Your task to perform on an android device: turn on the 24-hour format for clock Image 0: 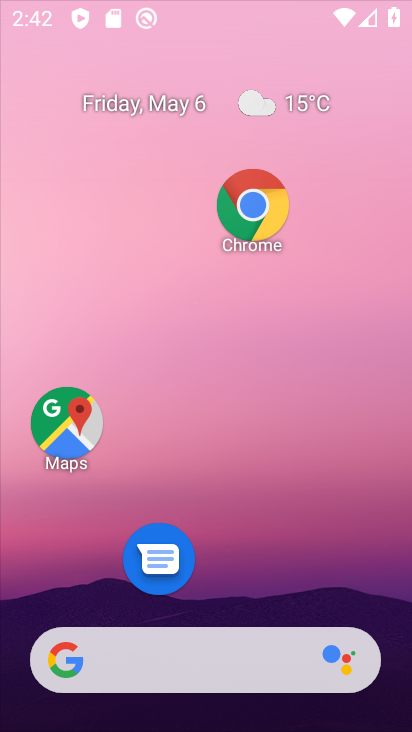
Step 0: click (296, 197)
Your task to perform on an android device: turn on the 24-hour format for clock Image 1: 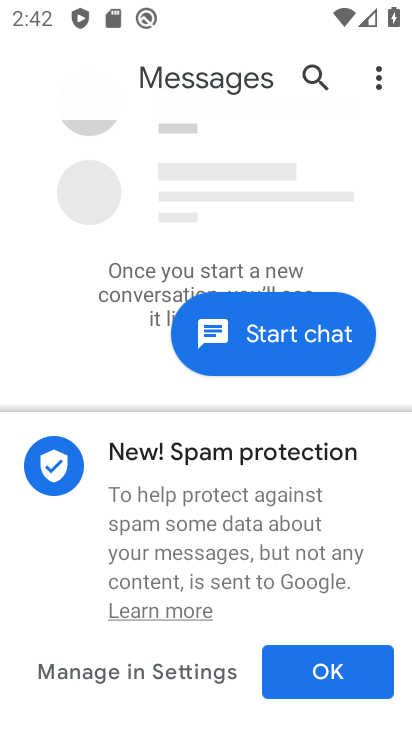
Step 1: press home button
Your task to perform on an android device: turn on the 24-hour format for clock Image 2: 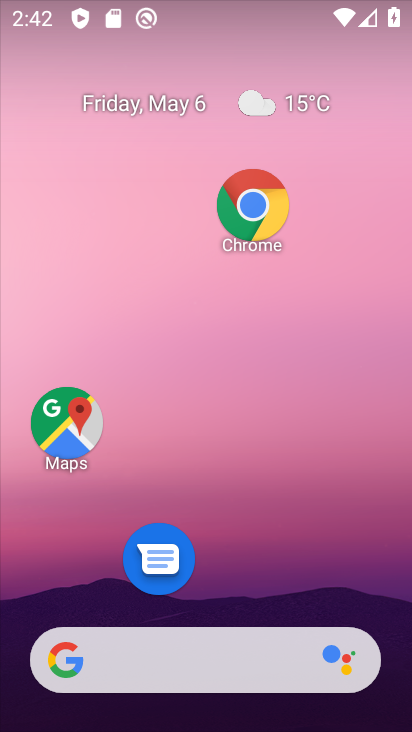
Step 2: drag from (275, 598) to (279, 193)
Your task to perform on an android device: turn on the 24-hour format for clock Image 3: 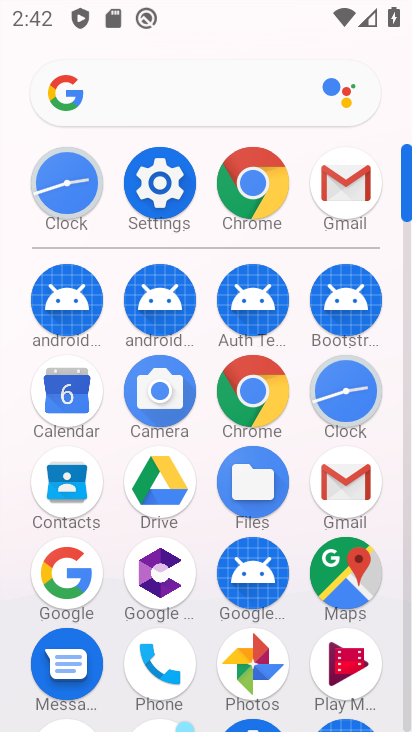
Step 3: click (407, 724)
Your task to perform on an android device: turn on the 24-hour format for clock Image 4: 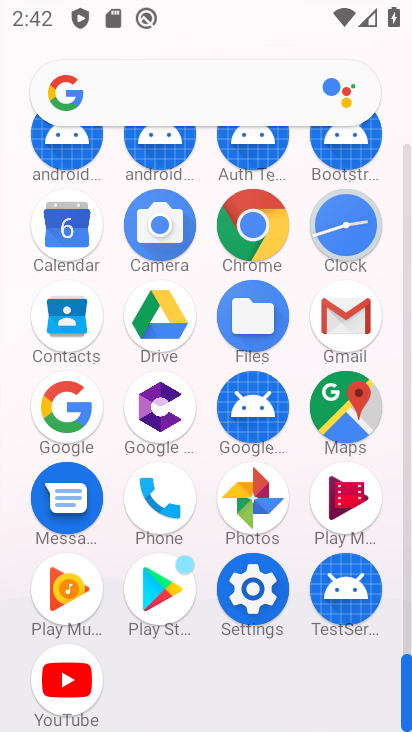
Step 4: click (94, 678)
Your task to perform on an android device: turn on the 24-hour format for clock Image 5: 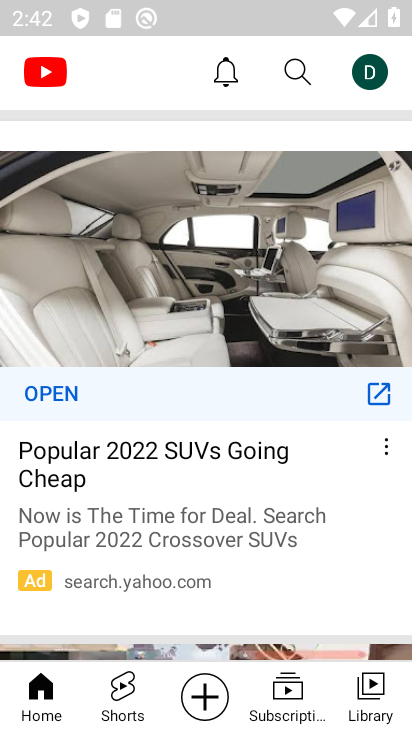
Step 5: press home button
Your task to perform on an android device: turn on the 24-hour format for clock Image 6: 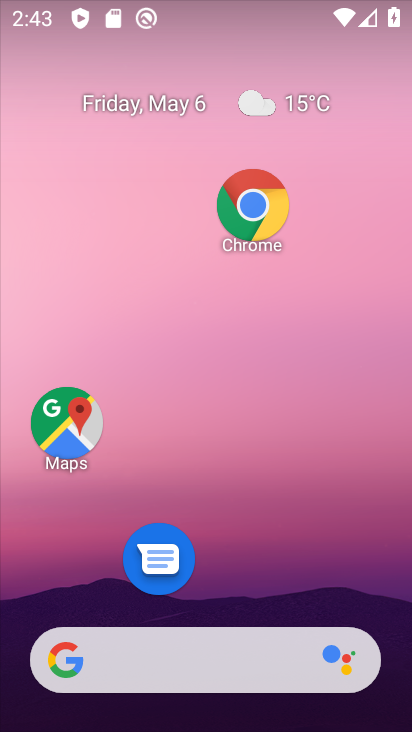
Step 6: drag from (248, 550) to (264, 111)
Your task to perform on an android device: turn on the 24-hour format for clock Image 7: 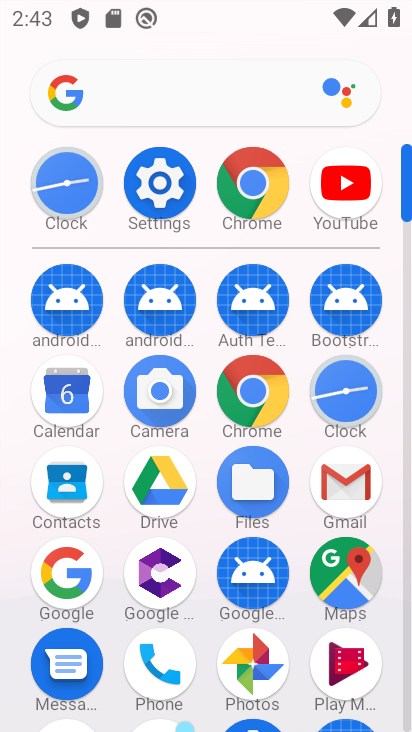
Step 7: click (159, 177)
Your task to perform on an android device: turn on the 24-hour format for clock Image 8: 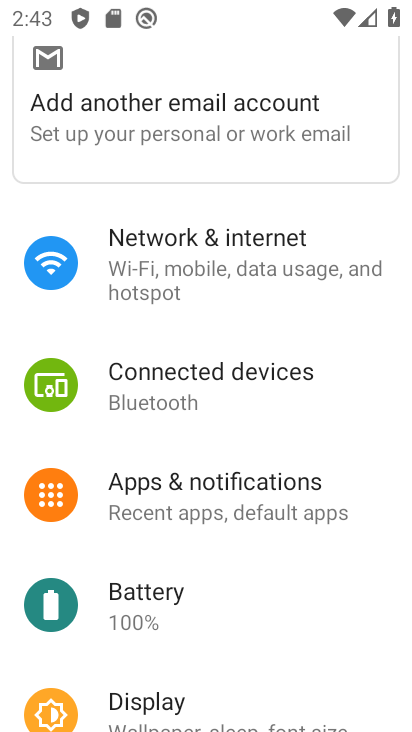
Step 8: press home button
Your task to perform on an android device: turn on the 24-hour format for clock Image 9: 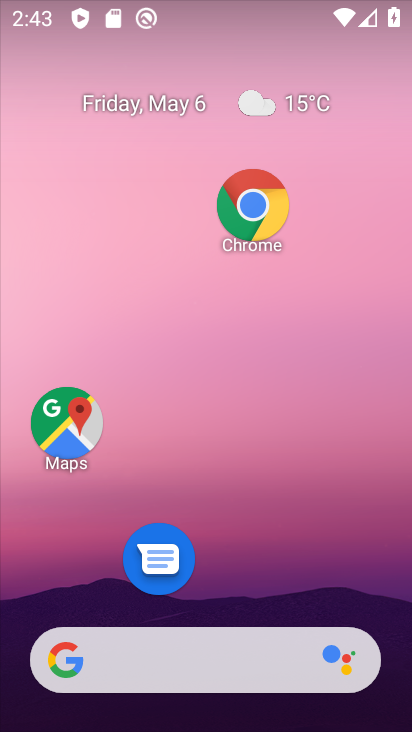
Step 9: drag from (306, 535) to (347, 73)
Your task to perform on an android device: turn on the 24-hour format for clock Image 10: 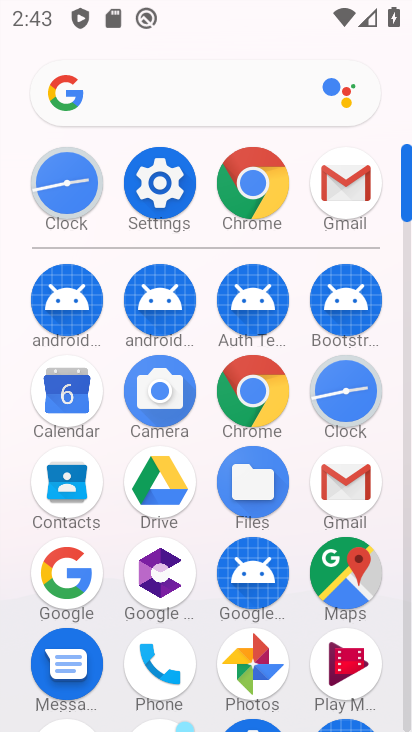
Step 10: click (349, 396)
Your task to perform on an android device: turn on the 24-hour format for clock Image 11: 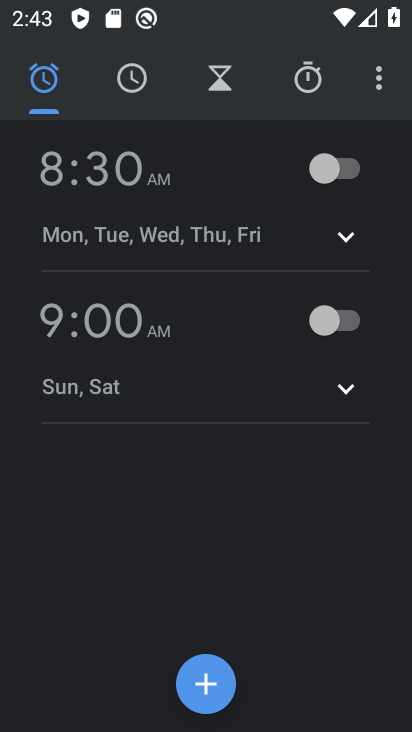
Step 11: click (376, 79)
Your task to perform on an android device: turn on the 24-hour format for clock Image 12: 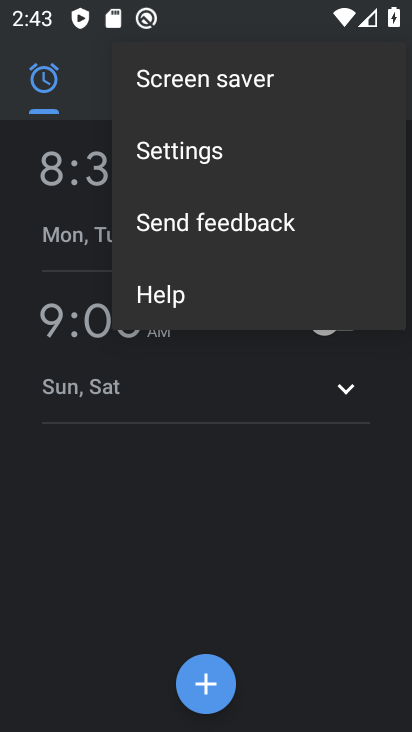
Step 12: click (270, 162)
Your task to perform on an android device: turn on the 24-hour format for clock Image 13: 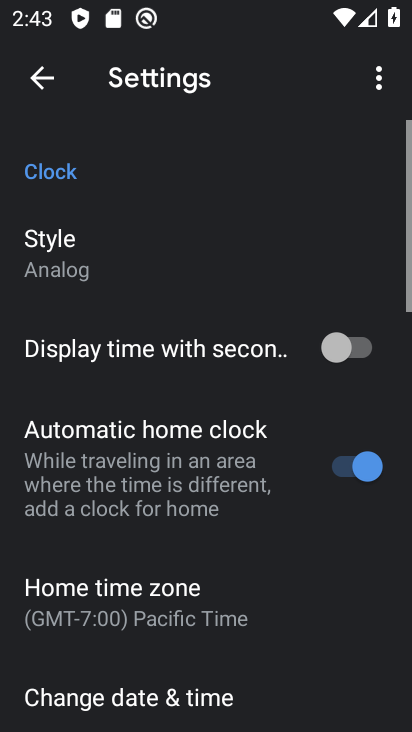
Step 13: drag from (83, 664) to (213, 200)
Your task to perform on an android device: turn on the 24-hour format for clock Image 14: 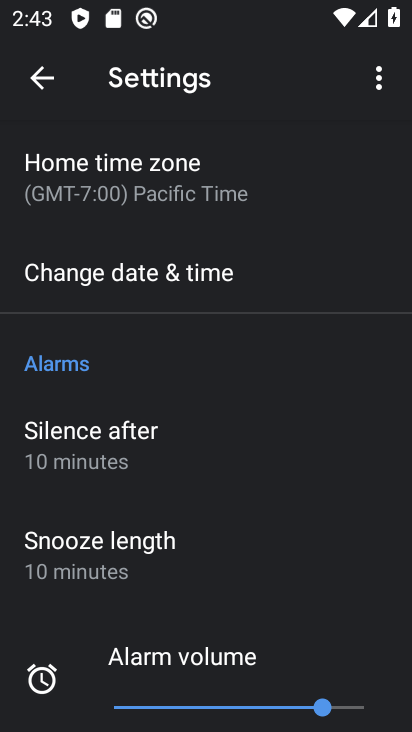
Step 14: click (189, 266)
Your task to perform on an android device: turn on the 24-hour format for clock Image 15: 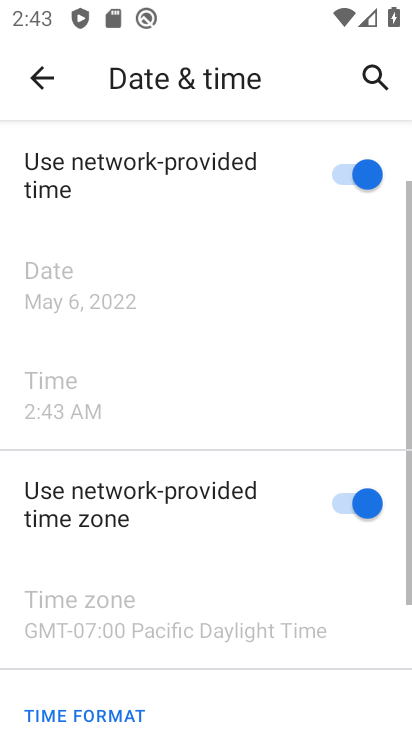
Step 15: drag from (189, 635) to (230, 283)
Your task to perform on an android device: turn on the 24-hour format for clock Image 16: 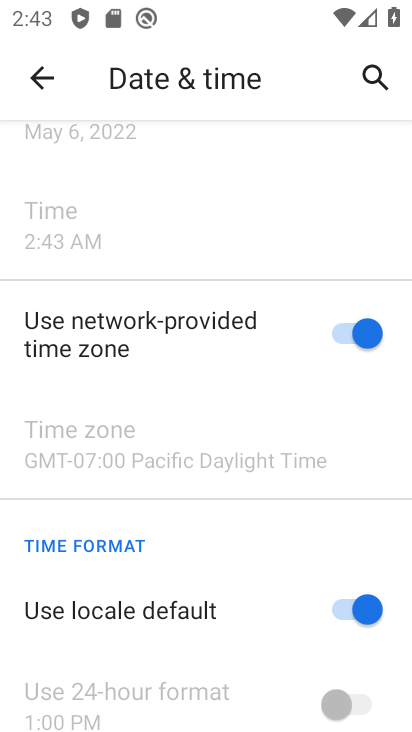
Step 16: click (311, 688)
Your task to perform on an android device: turn on the 24-hour format for clock Image 17: 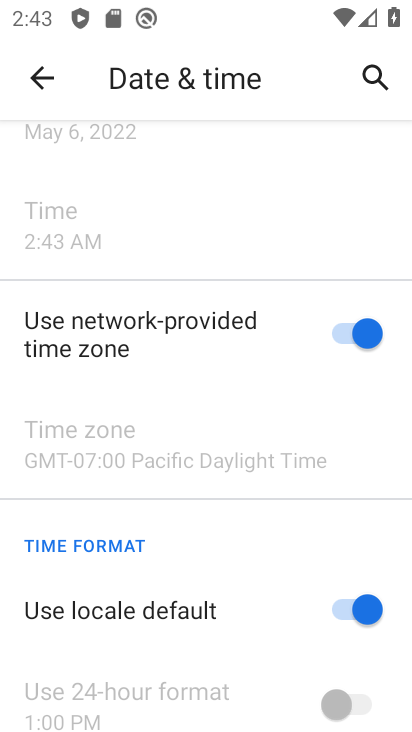
Step 17: click (336, 696)
Your task to perform on an android device: turn on the 24-hour format for clock Image 18: 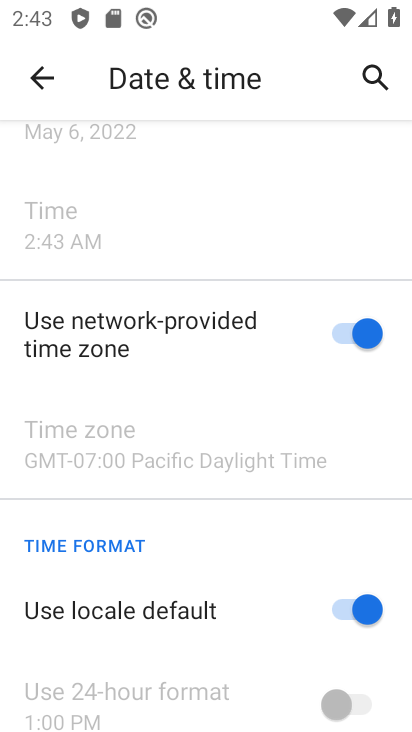
Step 18: click (321, 633)
Your task to perform on an android device: turn on the 24-hour format for clock Image 19: 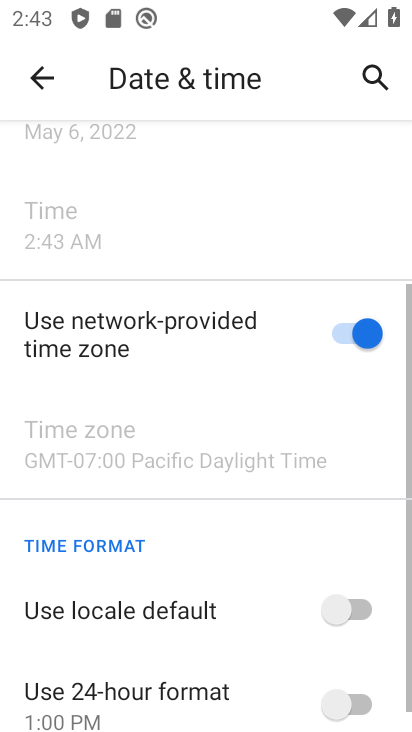
Step 19: click (328, 710)
Your task to perform on an android device: turn on the 24-hour format for clock Image 20: 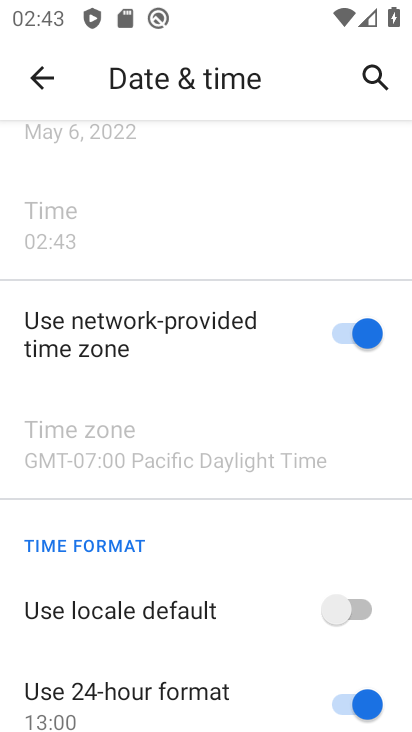
Step 20: task complete